Your task to perform on an android device: Open Amazon Image 0: 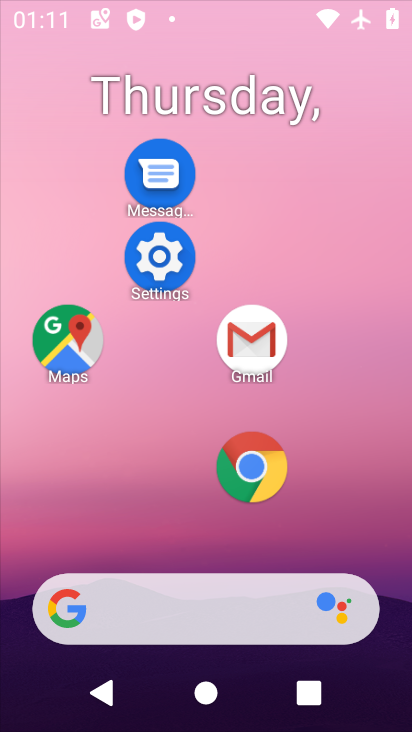
Step 0: click (292, 158)
Your task to perform on an android device: Open Amazon Image 1: 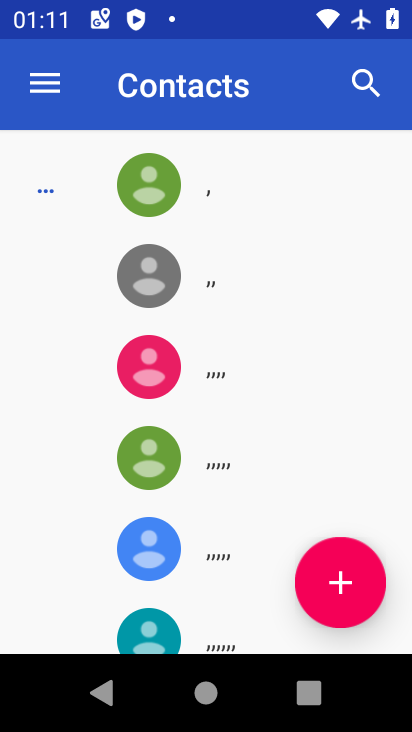
Step 1: press home button
Your task to perform on an android device: Open Amazon Image 2: 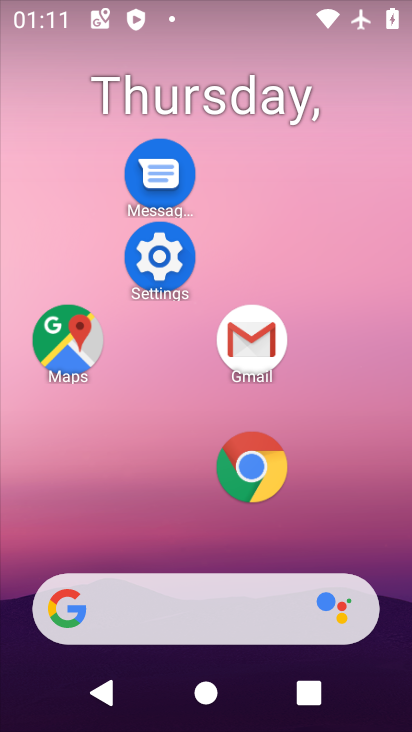
Step 2: click (252, 470)
Your task to perform on an android device: Open Amazon Image 3: 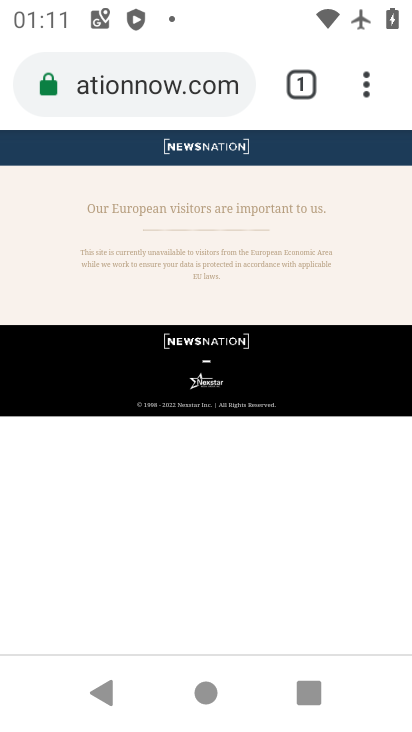
Step 3: click (311, 95)
Your task to perform on an android device: Open Amazon Image 4: 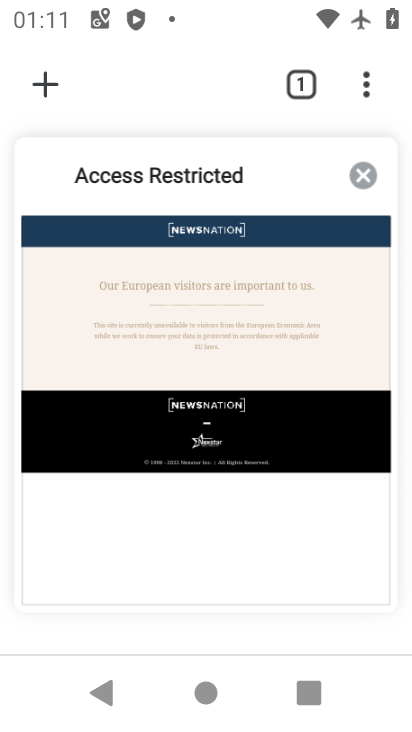
Step 4: click (364, 173)
Your task to perform on an android device: Open Amazon Image 5: 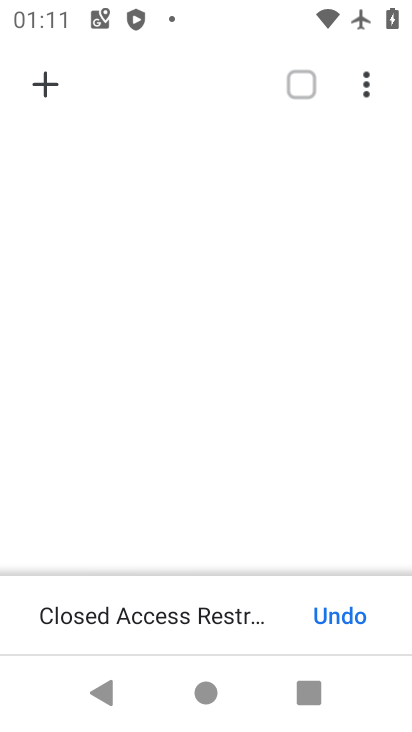
Step 5: click (42, 85)
Your task to perform on an android device: Open Amazon Image 6: 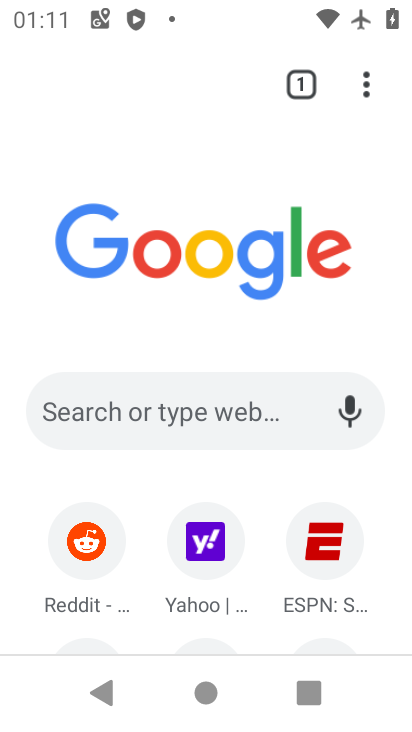
Step 6: drag from (251, 543) to (269, 219)
Your task to perform on an android device: Open Amazon Image 7: 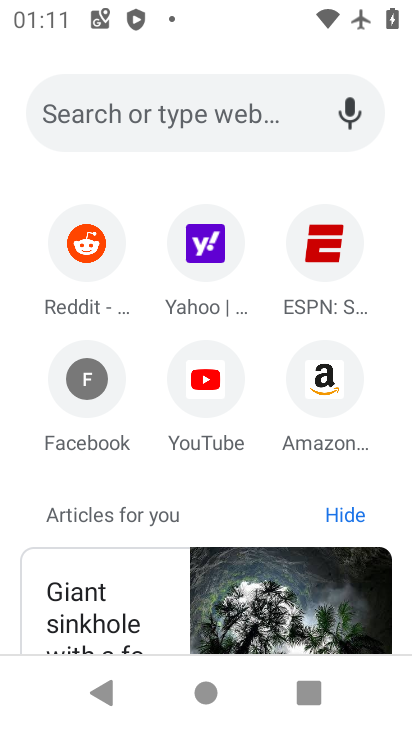
Step 7: click (342, 380)
Your task to perform on an android device: Open Amazon Image 8: 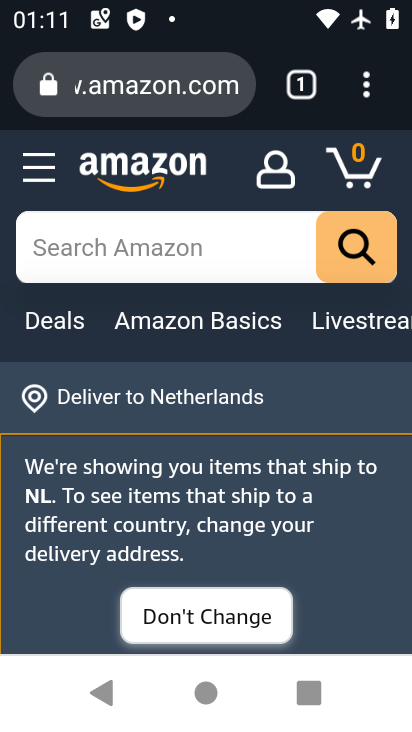
Step 8: task complete